Your task to perform on an android device: What's the weather? Image 0: 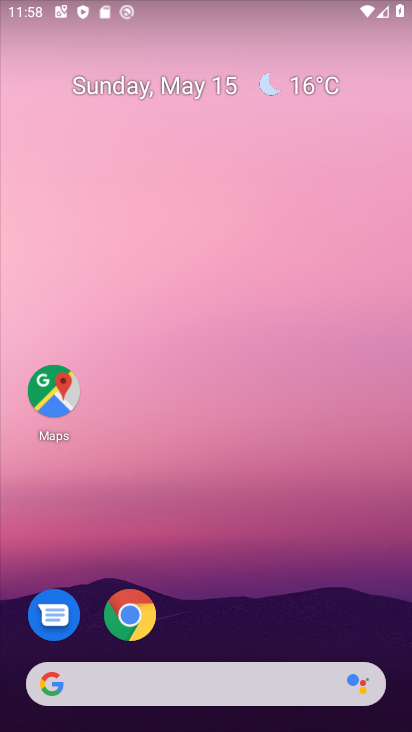
Step 0: drag from (351, 696) to (296, 176)
Your task to perform on an android device: What's the weather? Image 1: 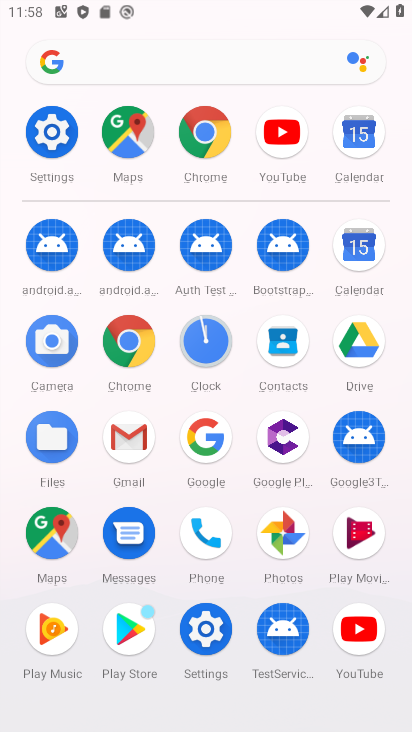
Step 1: drag from (15, 480) to (381, 453)
Your task to perform on an android device: What's the weather? Image 2: 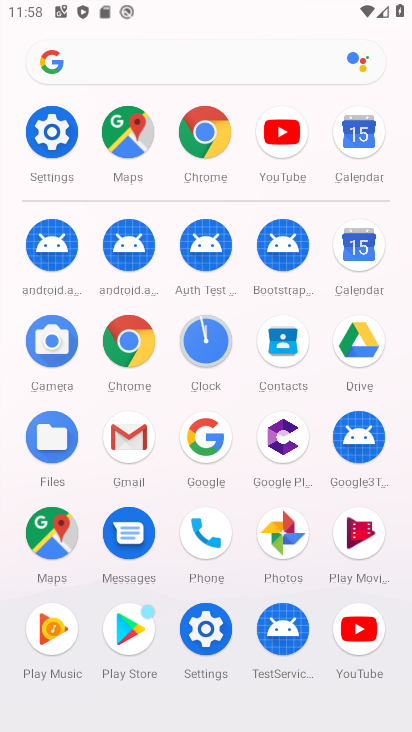
Step 2: press back button
Your task to perform on an android device: What's the weather? Image 3: 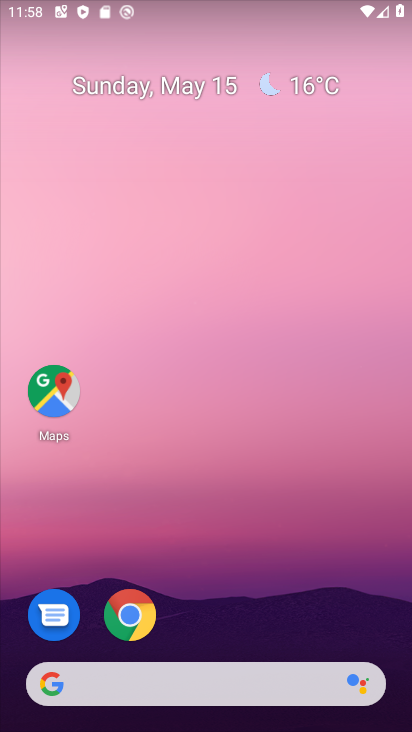
Step 3: click (258, 550)
Your task to perform on an android device: What's the weather? Image 4: 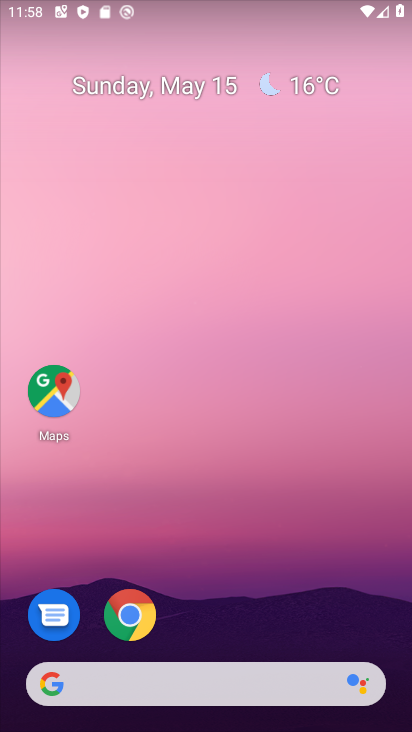
Step 4: drag from (10, 506) to (406, 494)
Your task to perform on an android device: What's the weather? Image 5: 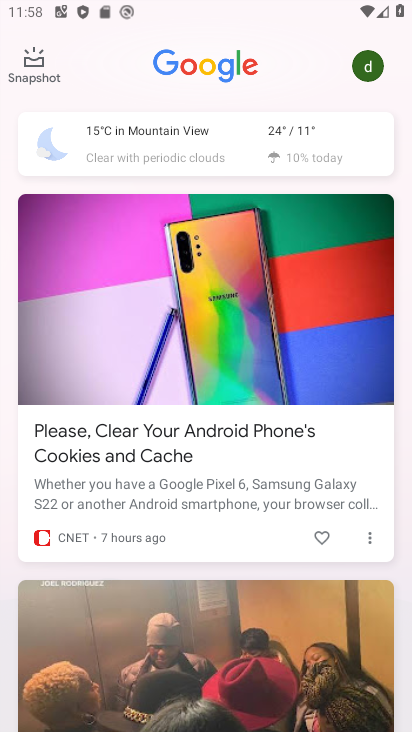
Step 5: click (176, 138)
Your task to perform on an android device: What's the weather? Image 6: 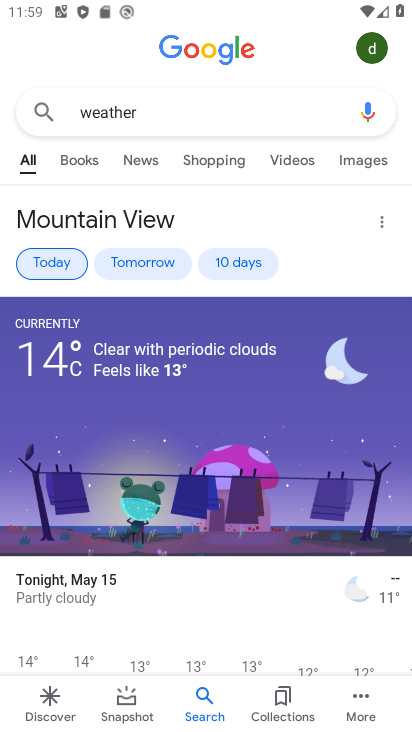
Step 6: task complete